Your task to perform on an android device: Show me popular videos on Youtube Image 0: 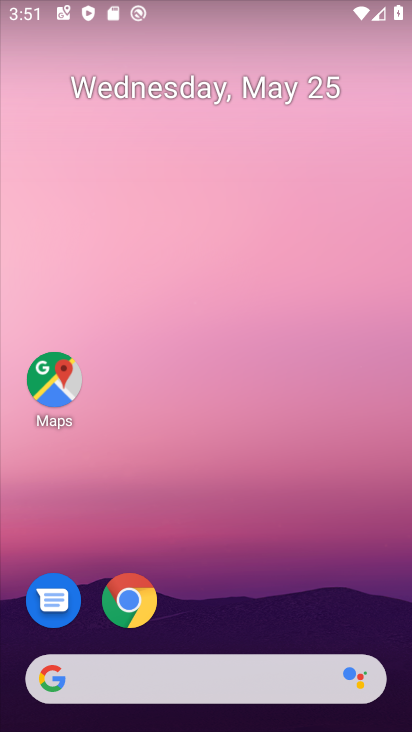
Step 0: drag from (26, 557) to (194, 253)
Your task to perform on an android device: Show me popular videos on Youtube Image 1: 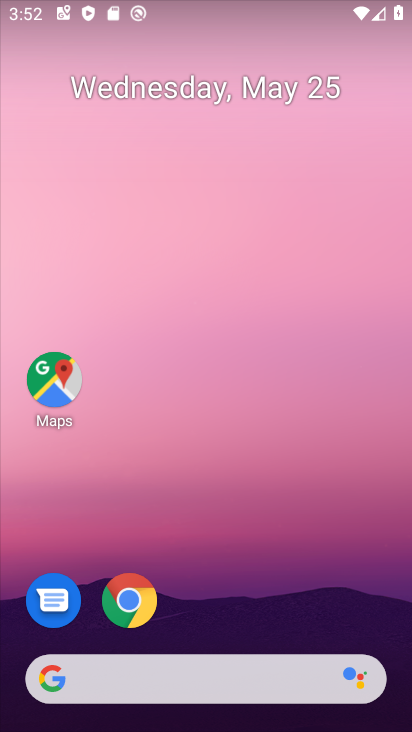
Step 1: drag from (158, 224) to (163, 189)
Your task to perform on an android device: Show me popular videos on Youtube Image 2: 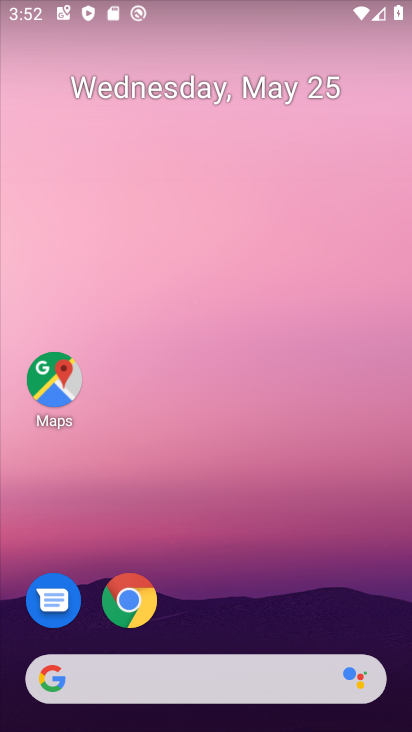
Step 2: drag from (42, 571) to (200, 176)
Your task to perform on an android device: Show me popular videos on Youtube Image 3: 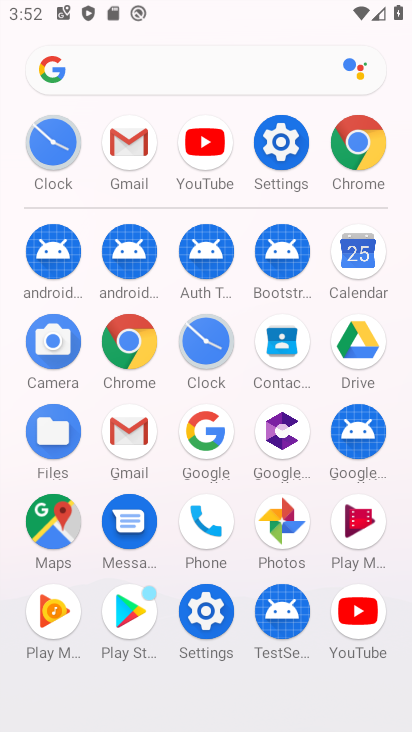
Step 3: click (361, 614)
Your task to perform on an android device: Show me popular videos on Youtube Image 4: 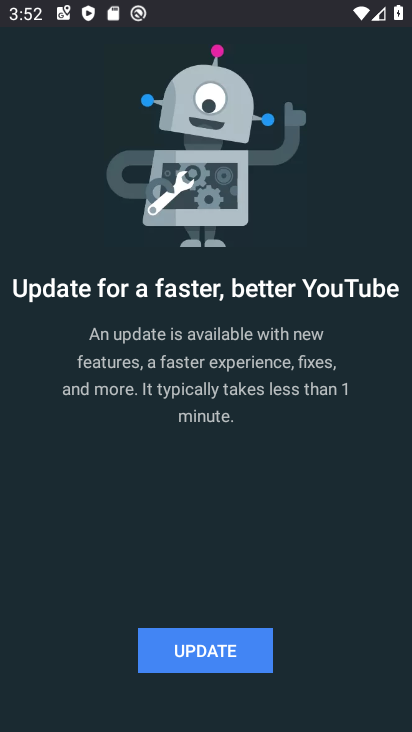
Step 4: task complete